Your task to perform on an android device: add a contact Image 0: 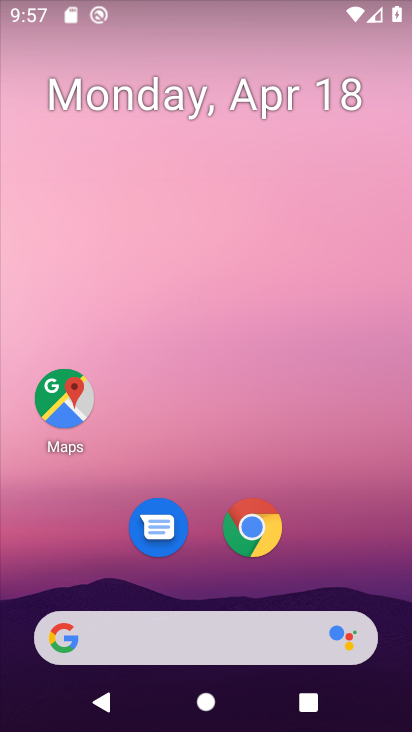
Step 0: drag from (210, 610) to (119, 25)
Your task to perform on an android device: add a contact Image 1: 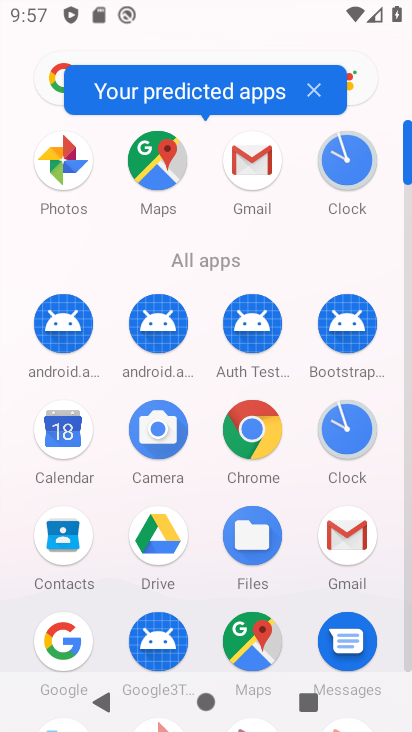
Step 1: drag from (239, 487) to (249, 47)
Your task to perform on an android device: add a contact Image 2: 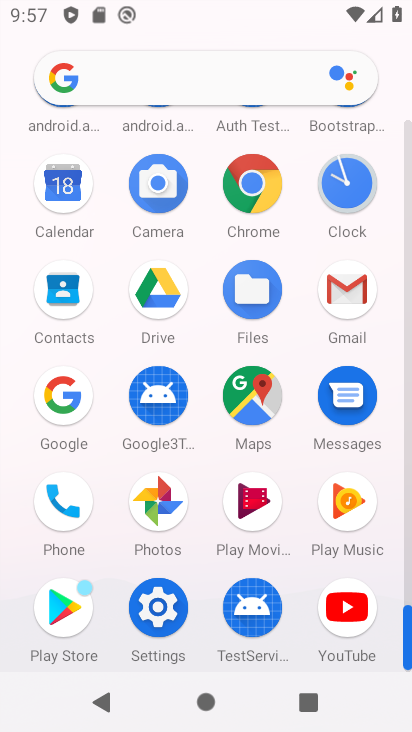
Step 2: click (62, 518)
Your task to perform on an android device: add a contact Image 3: 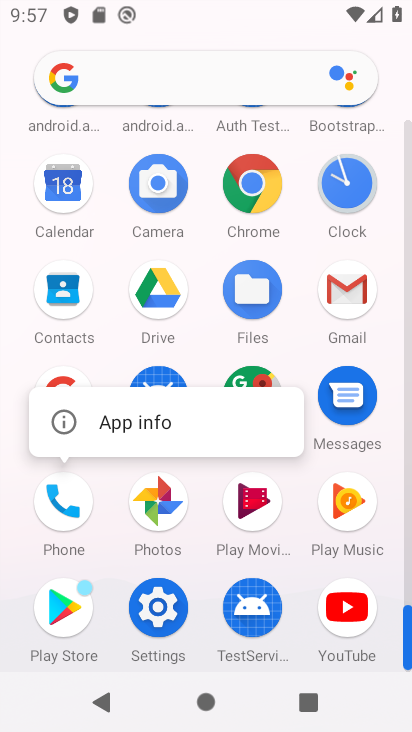
Step 3: click (57, 274)
Your task to perform on an android device: add a contact Image 4: 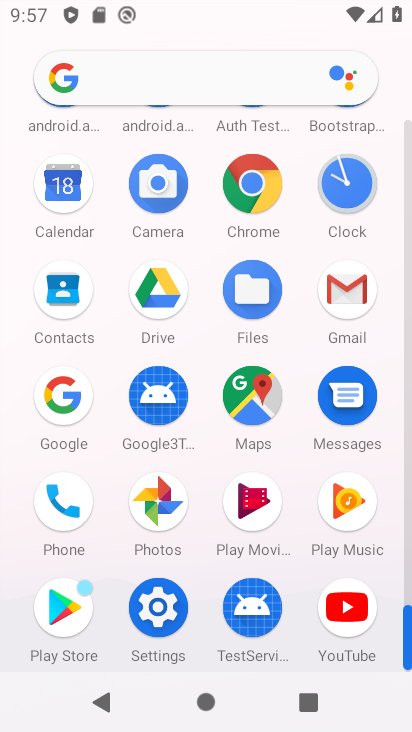
Step 4: click (73, 305)
Your task to perform on an android device: add a contact Image 5: 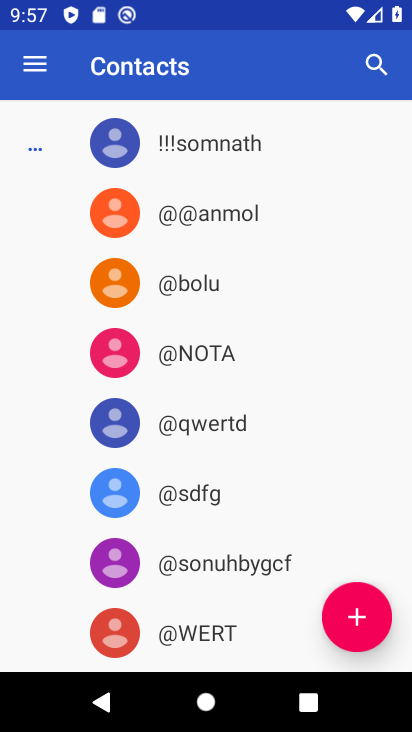
Step 5: click (381, 608)
Your task to perform on an android device: add a contact Image 6: 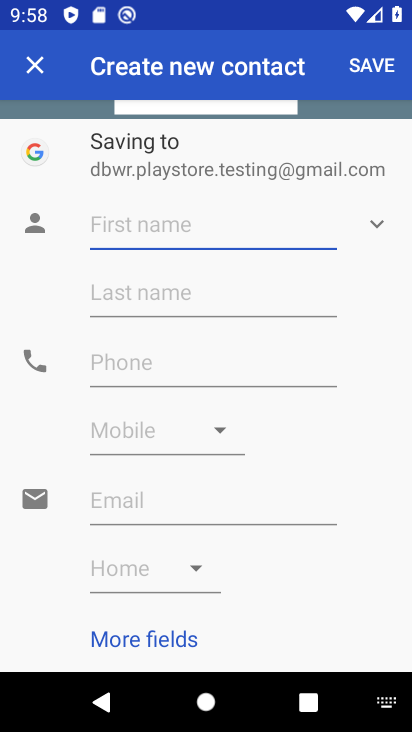
Step 6: type "jkjhug"
Your task to perform on an android device: add a contact Image 7: 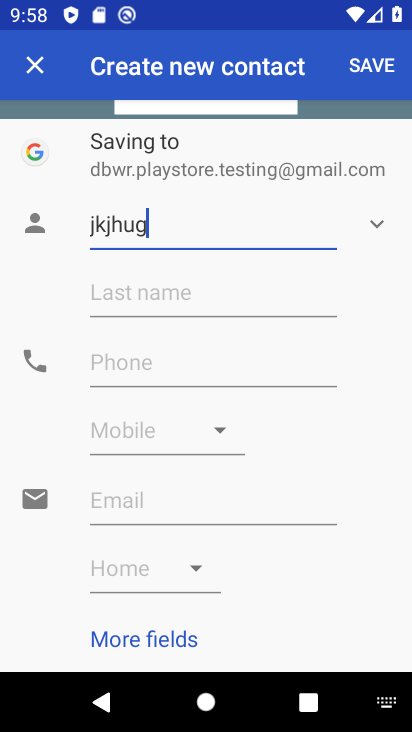
Step 7: type ""
Your task to perform on an android device: add a contact Image 8: 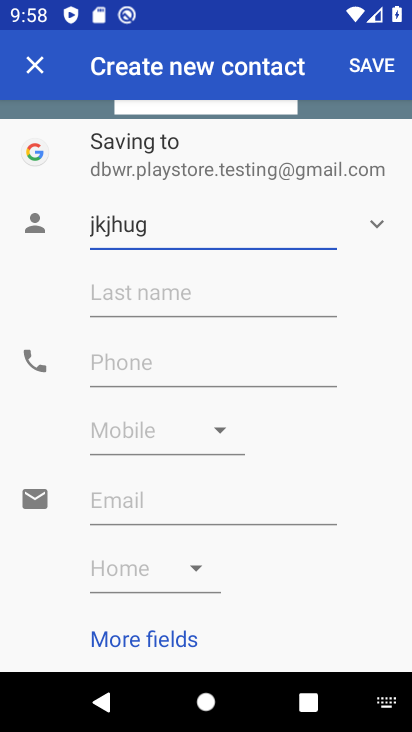
Step 8: click (223, 295)
Your task to perform on an android device: add a contact Image 9: 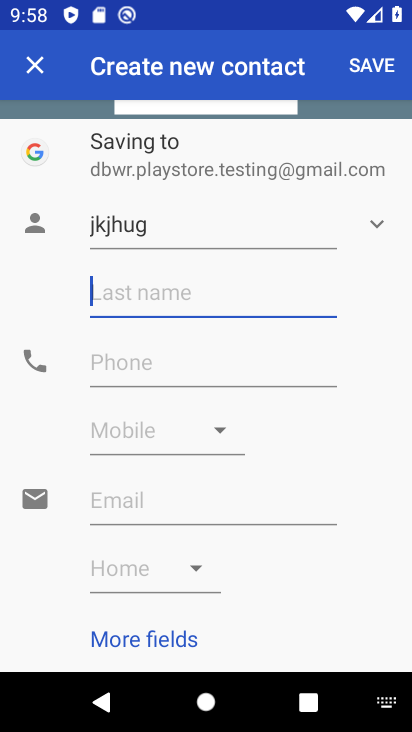
Step 9: type "hh"
Your task to perform on an android device: add a contact Image 10: 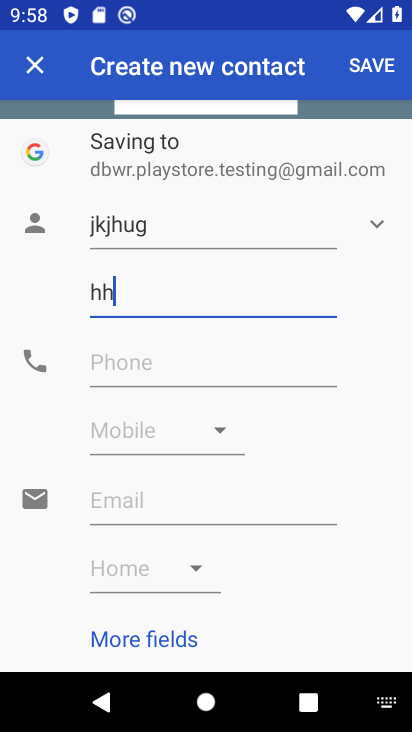
Step 10: type ""
Your task to perform on an android device: add a contact Image 11: 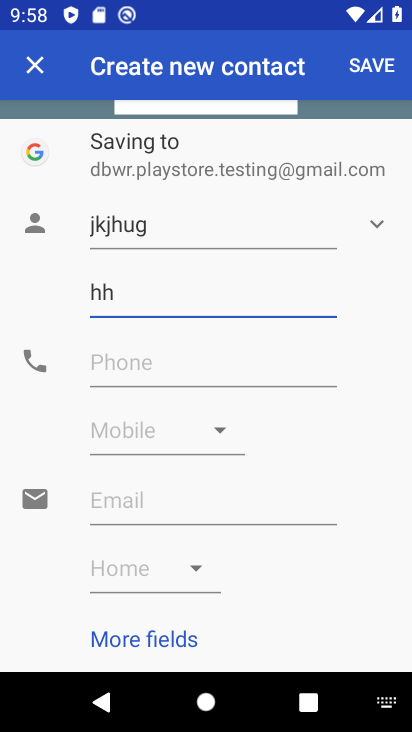
Step 11: click (174, 372)
Your task to perform on an android device: add a contact Image 12: 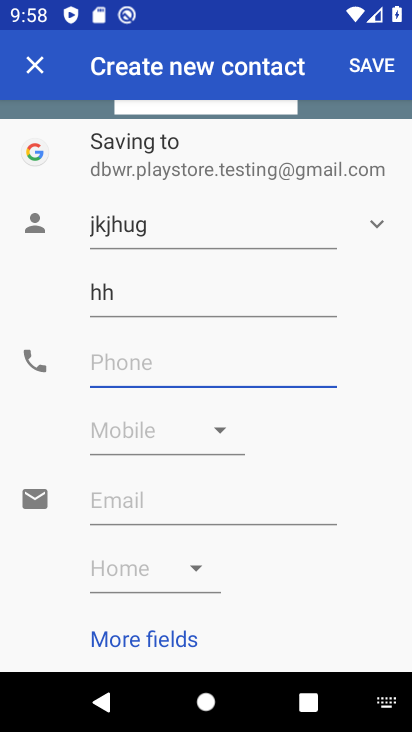
Step 12: type "8675464588"
Your task to perform on an android device: add a contact Image 13: 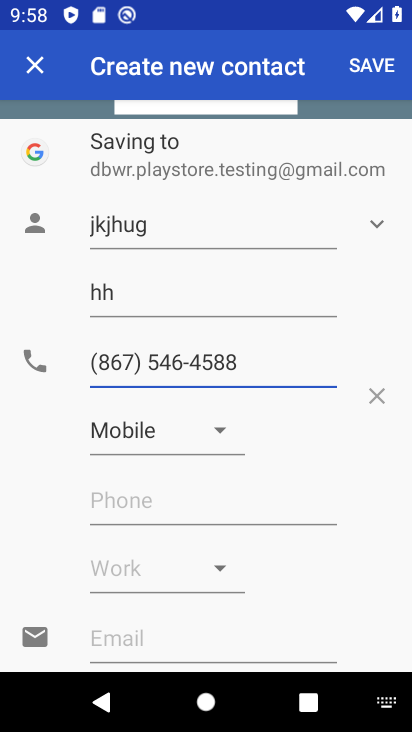
Step 13: click (371, 69)
Your task to perform on an android device: add a contact Image 14: 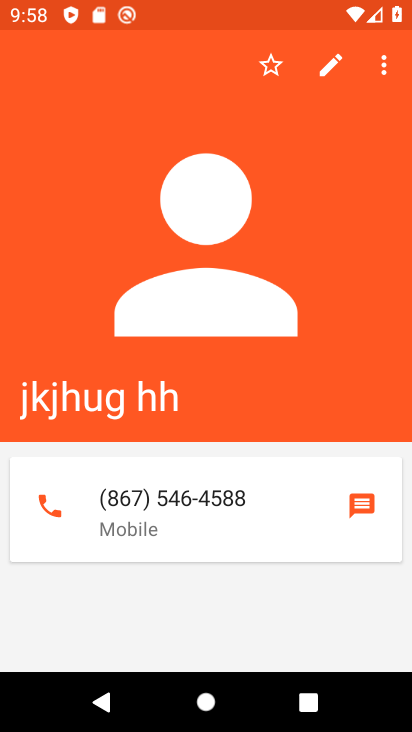
Step 14: task complete